Your task to perform on an android device: Open Chrome and go to settings Image 0: 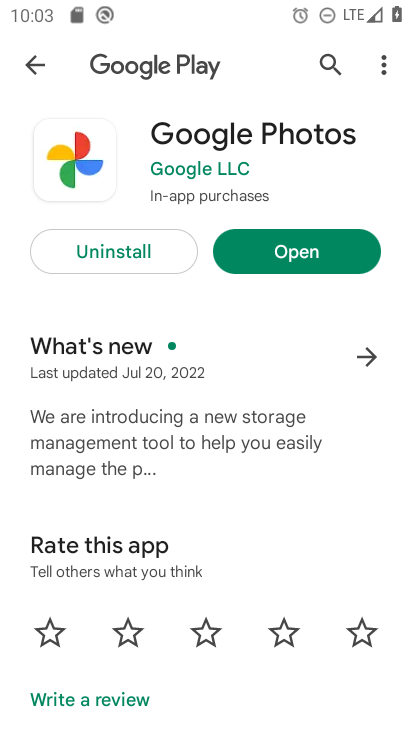
Step 0: press home button
Your task to perform on an android device: Open Chrome and go to settings Image 1: 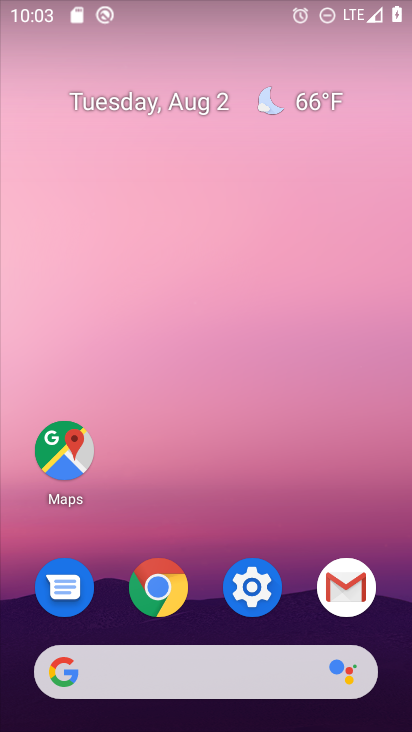
Step 1: click (170, 586)
Your task to perform on an android device: Open Chrome and go to settings Image 2: 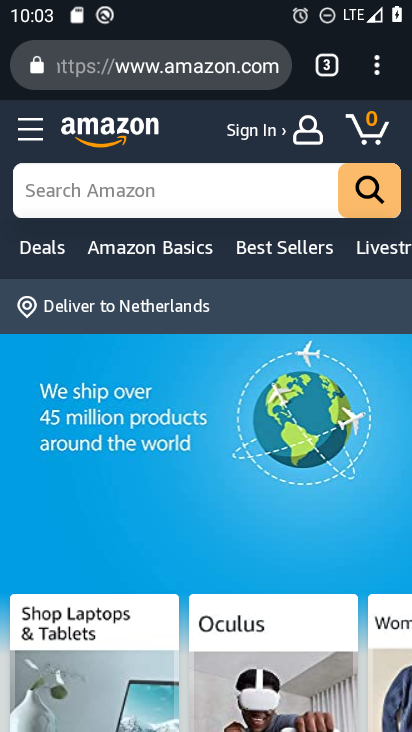
Step 2: click (375, 68)
Your task to perform on an android device: Open Chrome and go to settings Image 3: 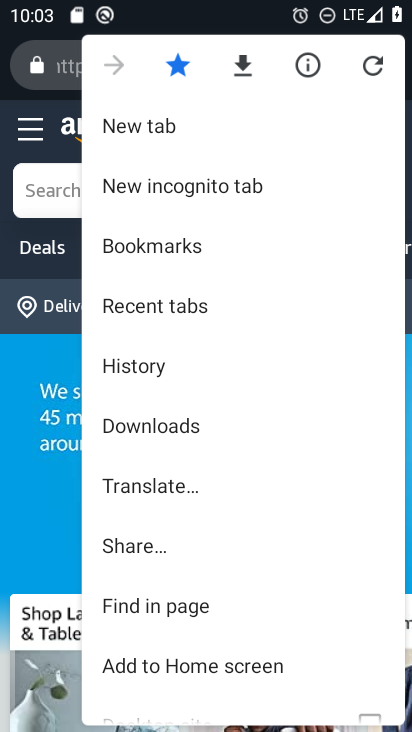
Step 3: drag from (202, 622) to (130, 397)
Your task to perform on an android device: Open Chrome and go to settings Image 4: 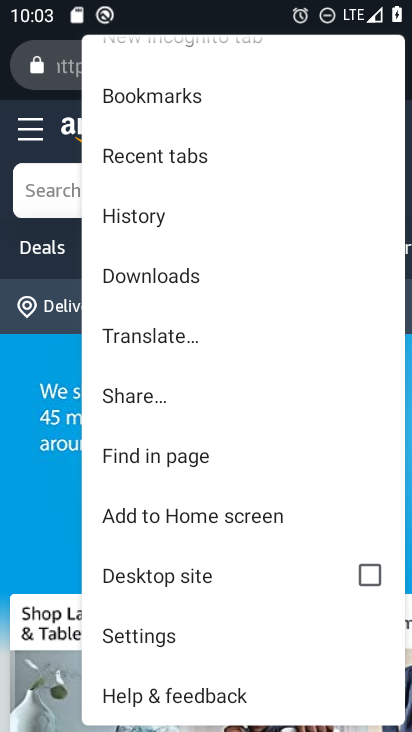
Step 4: click (160, 640)
Your task to perform on an android device: Open Chrome and go to settings Image 5: 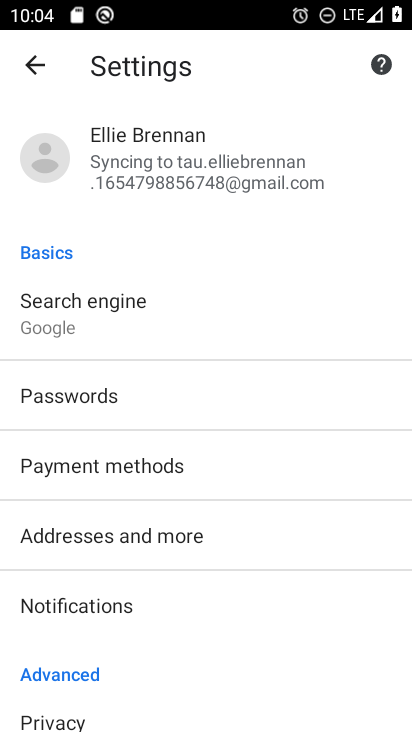
Step 5: task complete